Your task to perform on an android device: Search for Mexican restaurants on Maps Image 0: 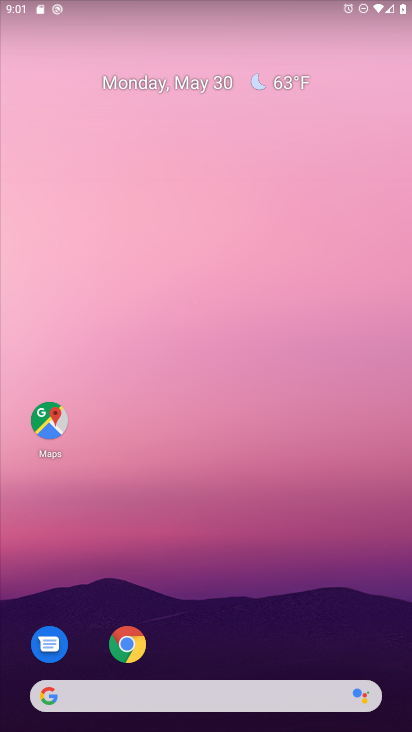
Step 0: click (51, 422)
Your task to perform on an android device: Search for Mexican restaurants on Maps Image 1: 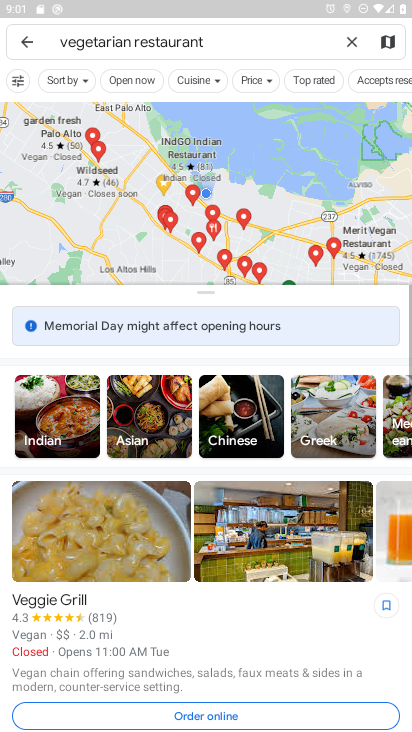
Step 1: click (343, 41)
Your task to perform on an android device: Search for Mexican restaurants on Maps Image 2: 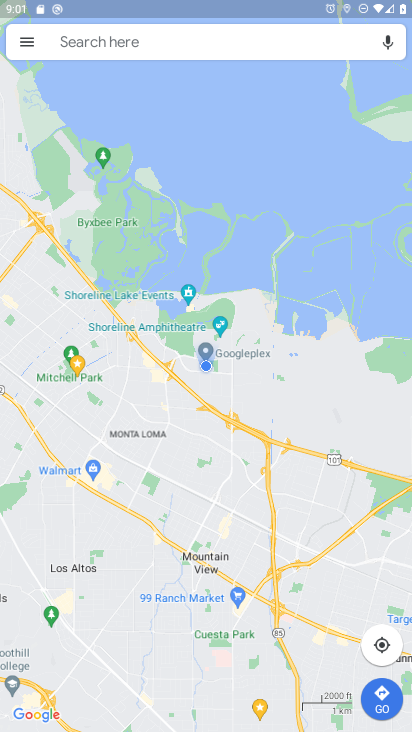
Step 2: click (143, 43)
Your task to perform on an android device: Search for Mexican restaurants on Maps Image 3: 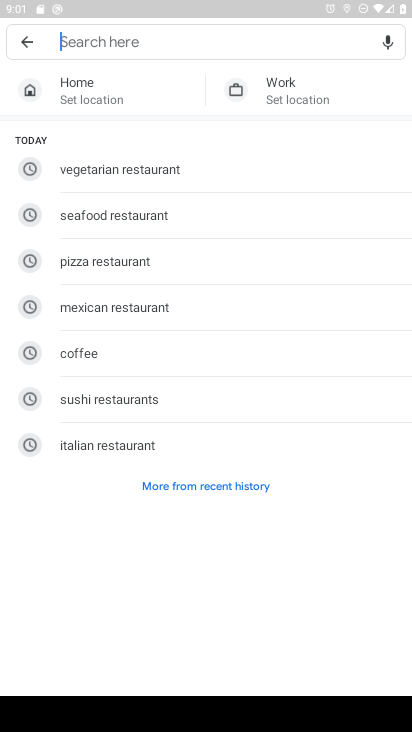
Step 3: click (113, 305)
Your task to perform on an android device: Search for Mexican restaurants on Maps Image 4: 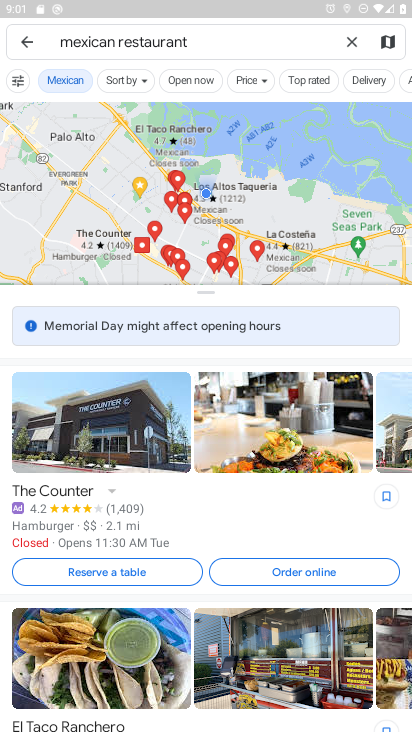
Step 4: task complete